Your task to perform on an android device: toggle show notifications on the lock screen Image 0: 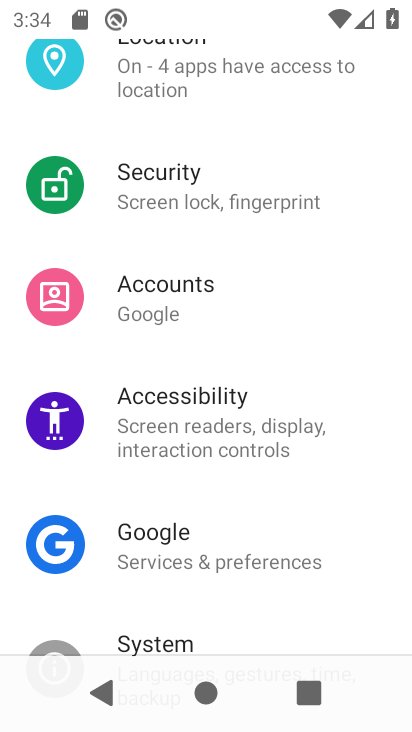
Step 0: press home button
Your task to perform on an android device: toggle show notifications on the lock screen Image 1: 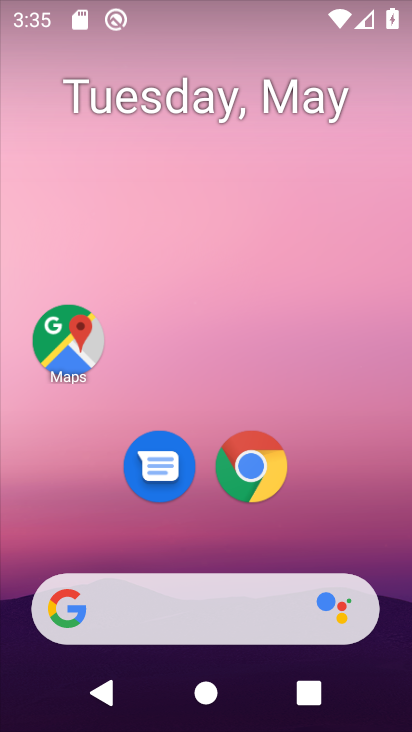
Step 1: drag from (283, 544) to (280, 103)
Your task to perform on an android device: toggle show notifications on the lock screen Image 2: 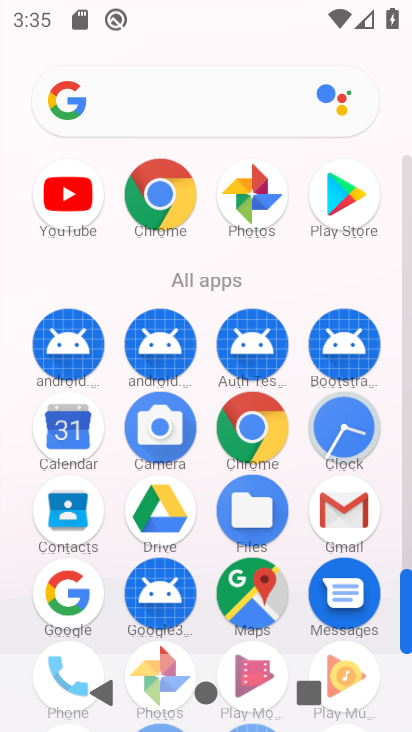
Step 2: drag from (206, 318) to (205, 74)
Your task to perform on an android device: toggle show notifications on the lock screen Image 3: 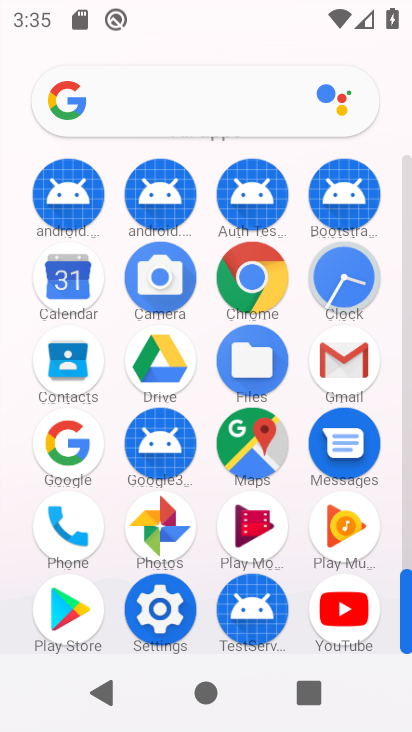
Step 3: click (171, 611)
Your task to perform on an android device: toggle show notifications on the lock screen Image 4: 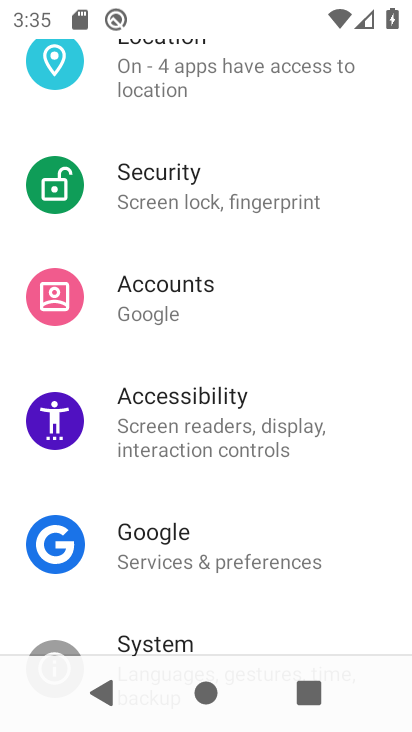
Step 4: drag from (265, 577) to (269, 94)
Your task to perform on an android device: toggle show notifications on the lock screen Image 5: 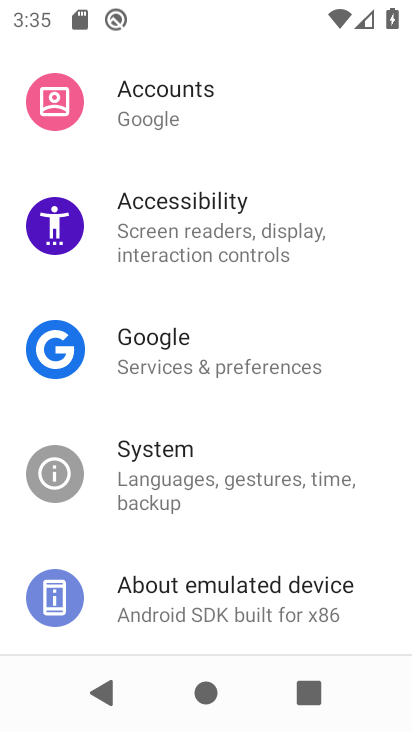
Step 5: drag from (240, 509) to (244, 647)
Your task to perform on an android device: toggle show notifications on the lock screen Image 6: 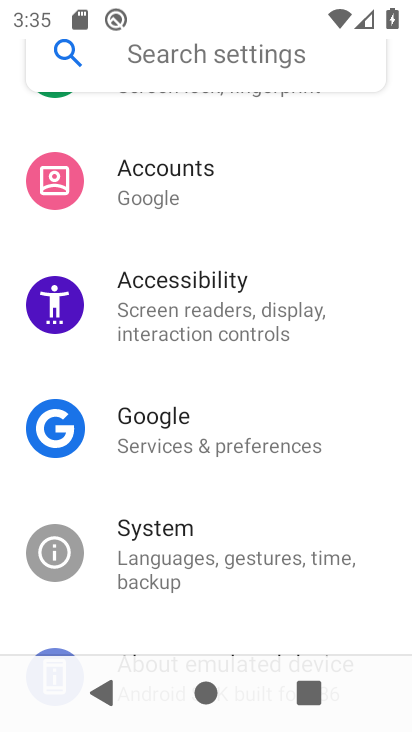
Step 6: drag from (237, 127) to (226, 566)
Your task to perform on an android device: toggle show notifications on the lock screen Image 7: 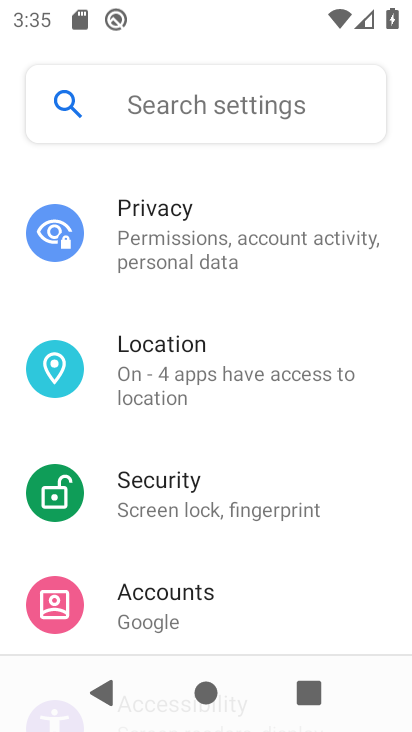
Step 7: drag from (220, 239) to (182, 616)
Your task to perform on an android device: toggle show notifications on the lock screen Image 8: 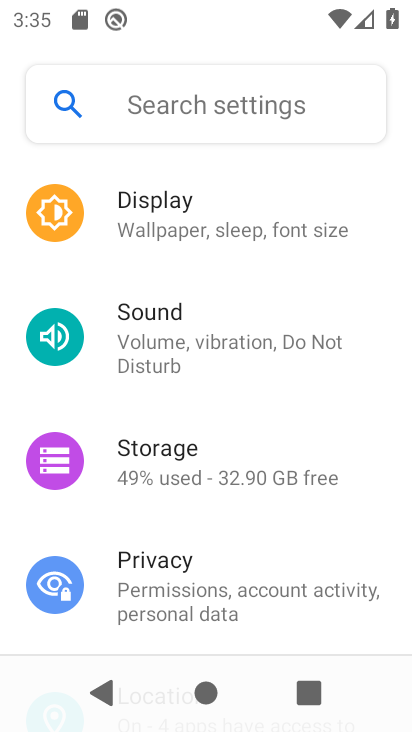
Step 8: drag from (182, 212) to (138, 579)
Your task to perform on an android device: toggle show notifications on the lock screen Image 9: 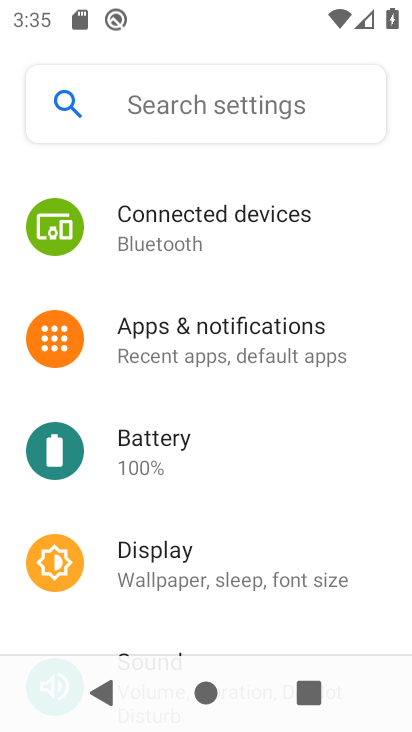
Step 9: click (136, 338)
Your task to perform on an android device: toggle show notifications on the lock screen Image 10: 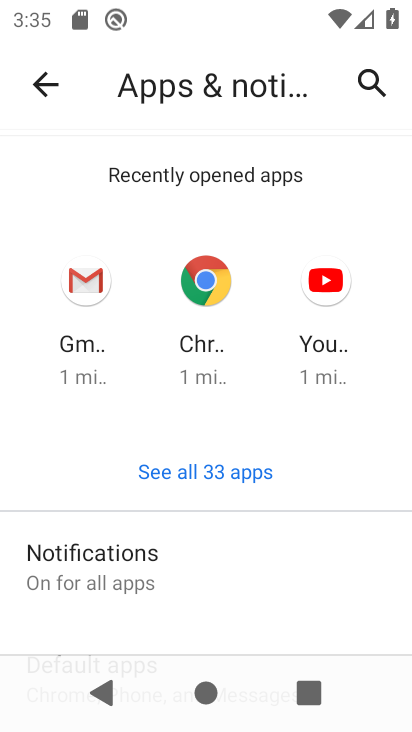
Step 10: click (67, 566)
Your task to perform on an android device: toggle show notifications on the lock screen Image 11: 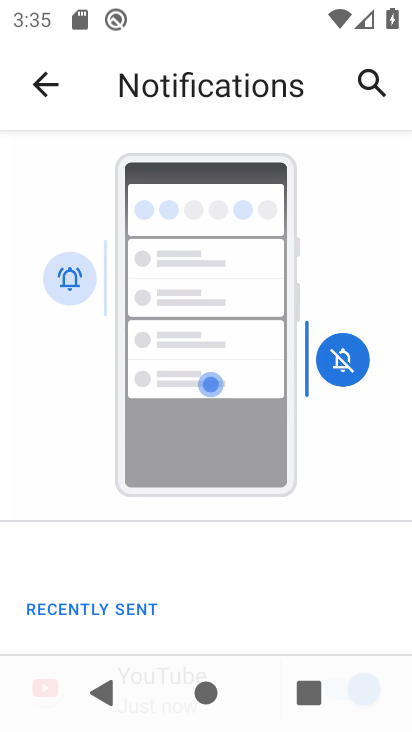
Step 11: drag from (221, 562) to (218, 52)
Your task to perform on an android device: toggle show notifications on the lock screen Image 12: 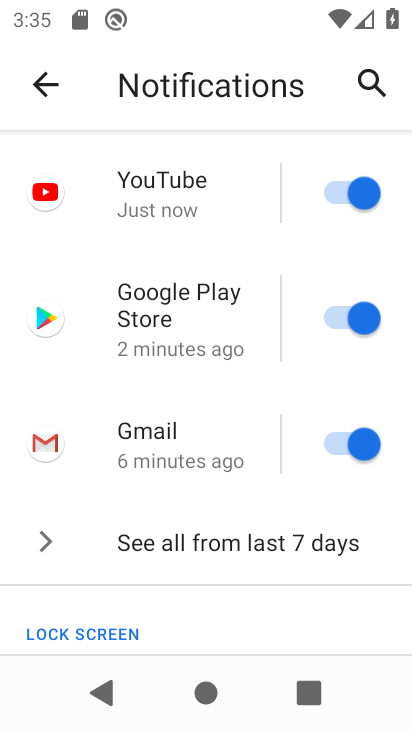
Step 12: drag from (269, 586) to (258, 251)
Your task to perform on an android device: toggle show notifications on the lock screen Image 13: 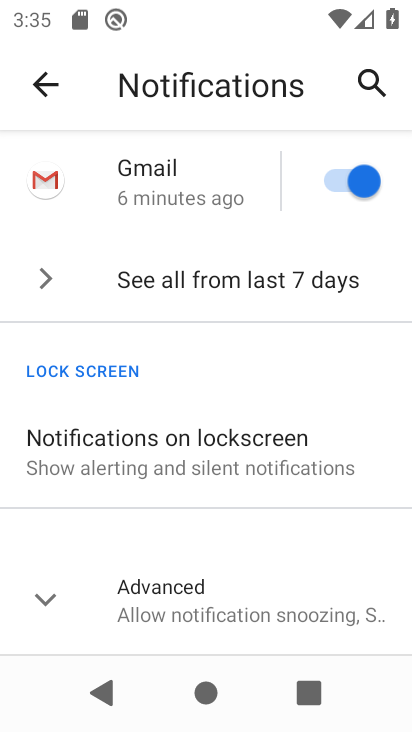
Step 13: click (190, 458)
Your task to perform on an android device: toggle show notifications on the lock screen Image 14: 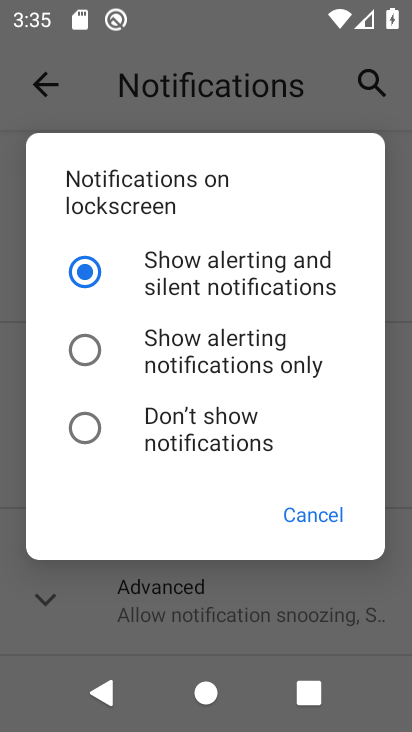
Step 14: click (182, 368)
Your task to perform on an android device: toggle show notifications on the lock screen Image 15: 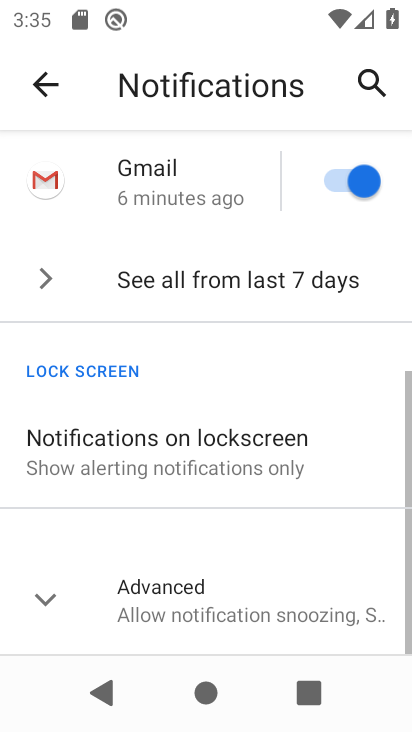
Step 15: task complete